Your task to perform on an android device: What's the weather going to be tomorrow? Image 0: 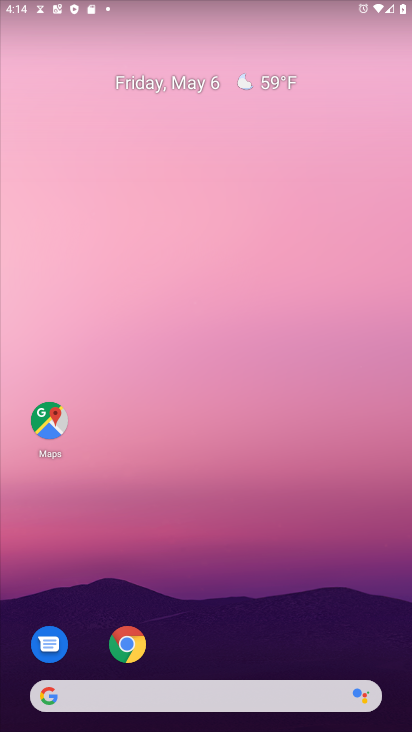
Step 0: drag from (217, 616) to (171, 11)
Your task to perform on an android device: What's the weather going to be tomorrow? Image 1: 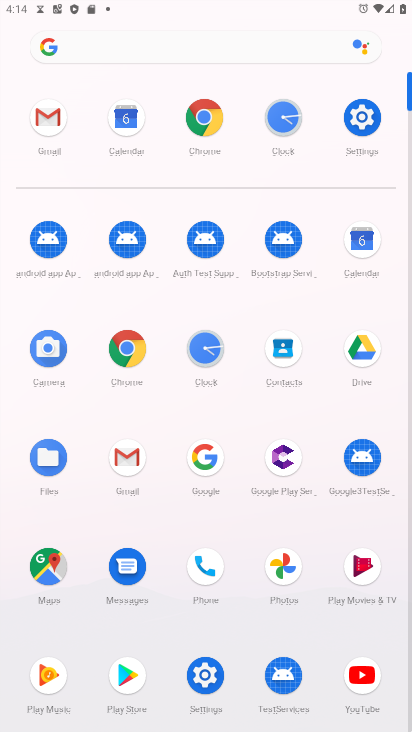
Step 1: click (203, 456)
Your task to perform on an android device: What's the weather going to be tomorrow? Image 2: 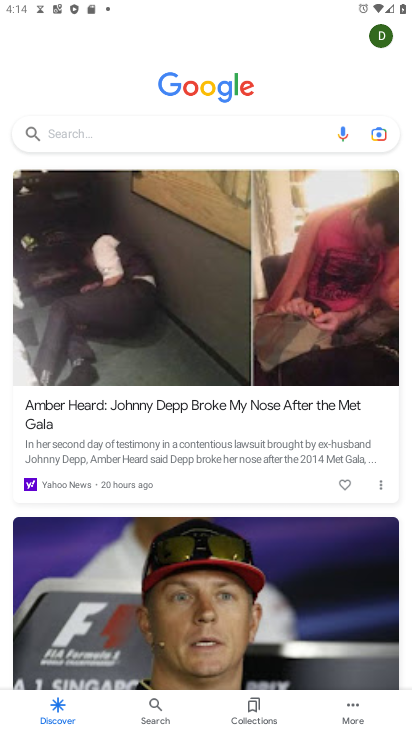
Step 2: click (221, 125)
Your task to perform on an android device: What's the weather going to be tomorrow? Image 3: 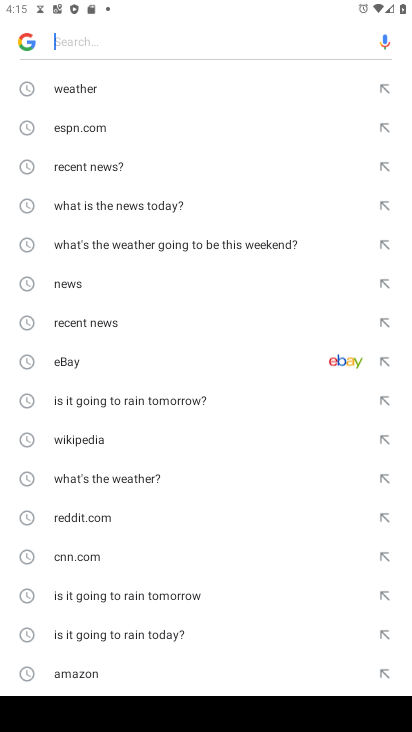
Step 3: type "weather tomorrow"
Your task to perform on an android device: What's the weather going to be tomorrow? Image 4: 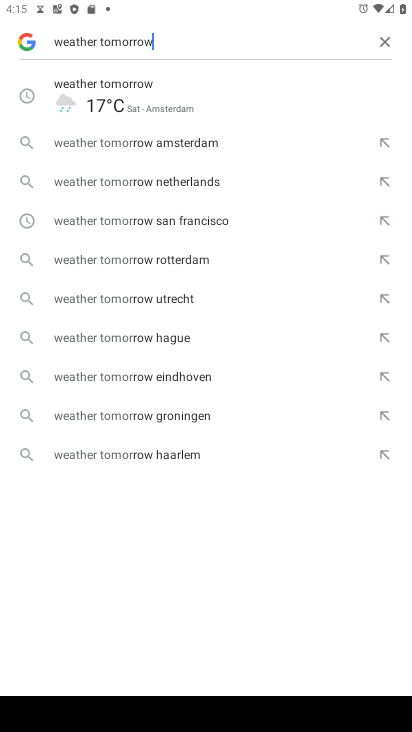
Step 4: type ""
Your task to perform on an android device: What's the weather going to be tomorrow? Image 5: 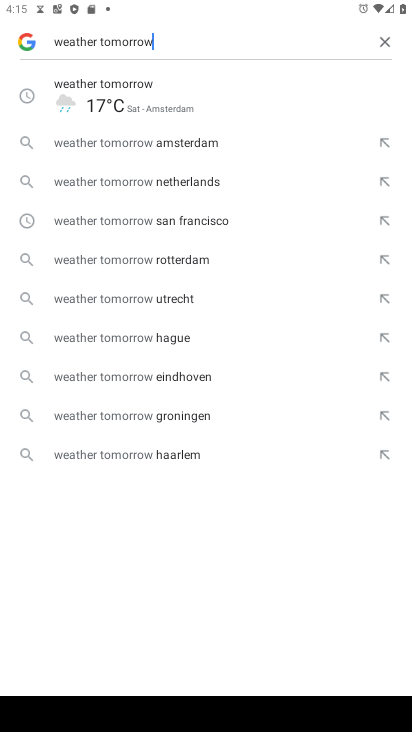
Step 5: click (103, 103)
Your task to perform on an android device: What's the weather going to be tomorrow? Image 6: 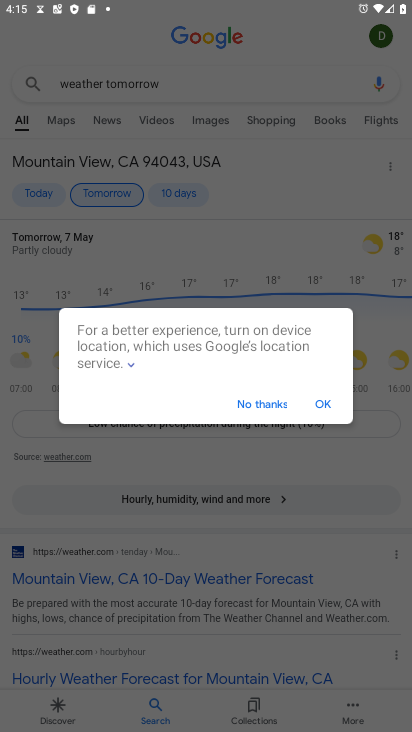
Step 6: click (263, 407)
Your task to perform on an android device: What's the weather going to be tomorrow? Image 7: 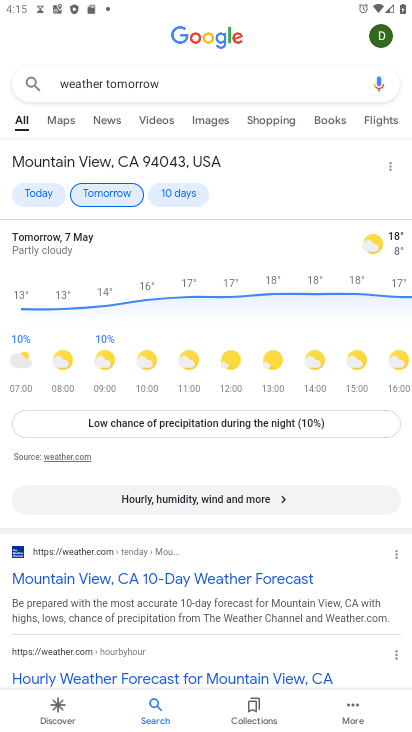
Step 7: task complete